Your task to perform on an android device: What's on my calendar today? Image 0: 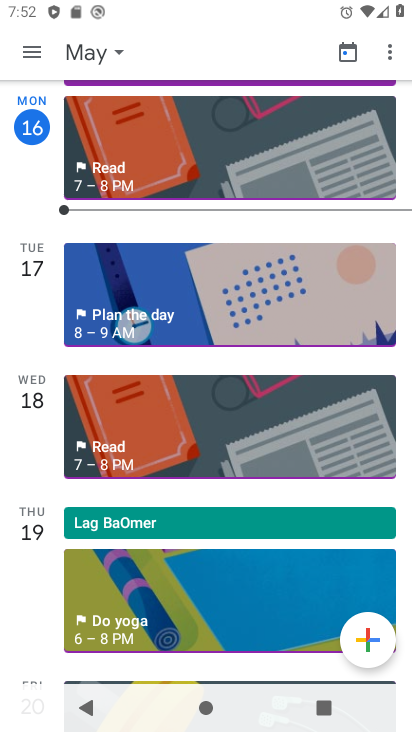
Step 0: click (144, 322)
Your task to perform on an android device: What's on my calendar today? Image 1: 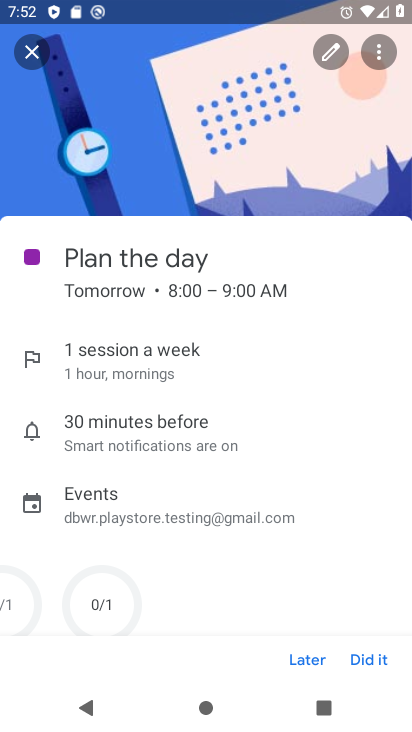
Step 1: task complete